Your task to perform on an android device: Go to privacy settings Image 0: 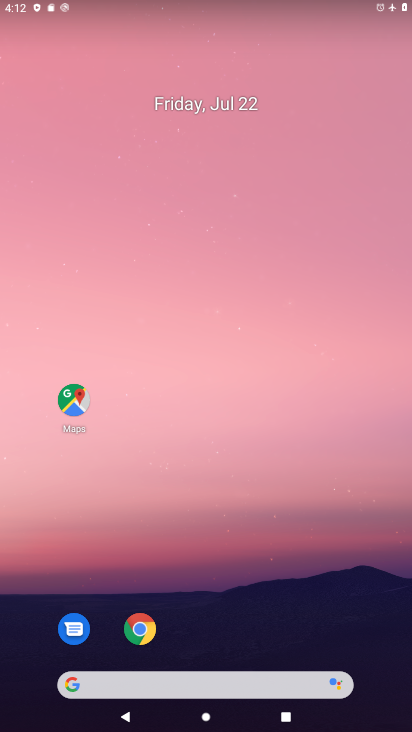
Step 0: drag from (219, 572) to (208, 71)
Your task to perform on an android device: Go to privacy settings Image 1: 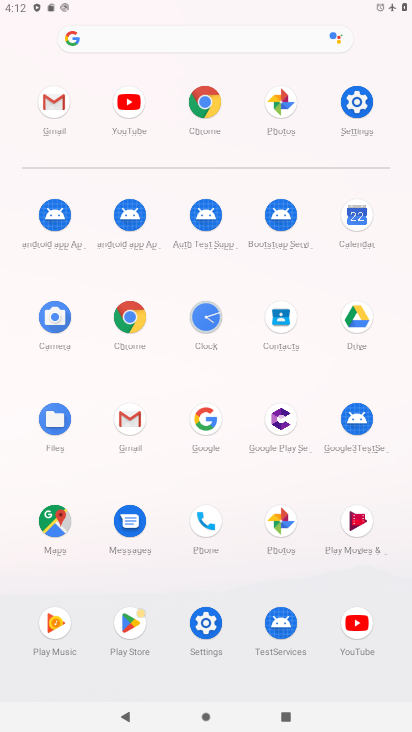
Step 1: click (359, 102)
Your task to perform on an android device: Go to privacy settings Image 2: 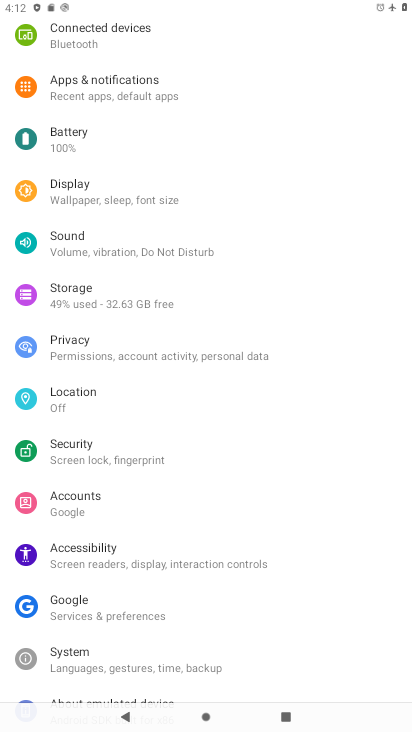
Step 2: click (89, 347)
Your task to perform on an android device: Go to privacy settings Image 3: 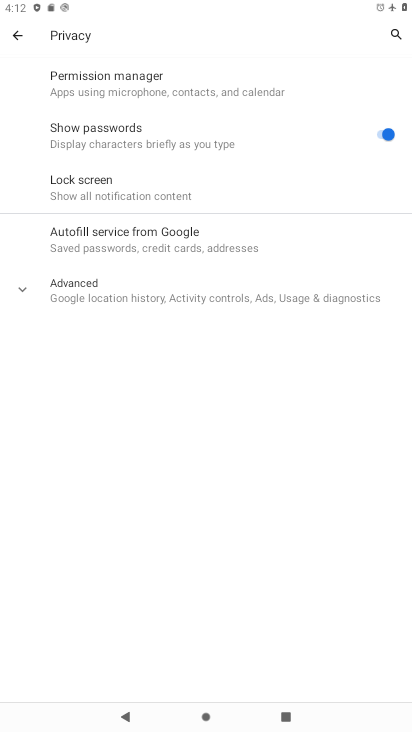
Step 3: task complete